Your task to perform on an android device: check battery use Image 0: 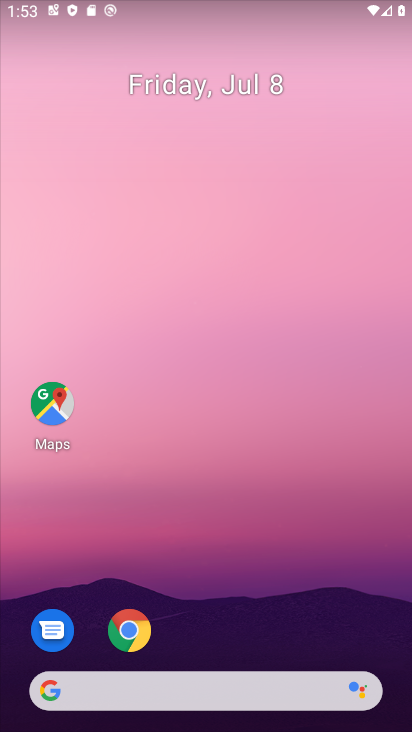
Step 0: drag from (211, 643) to (245, 67)
Your task to perform on an android device: check battery use Image 1: 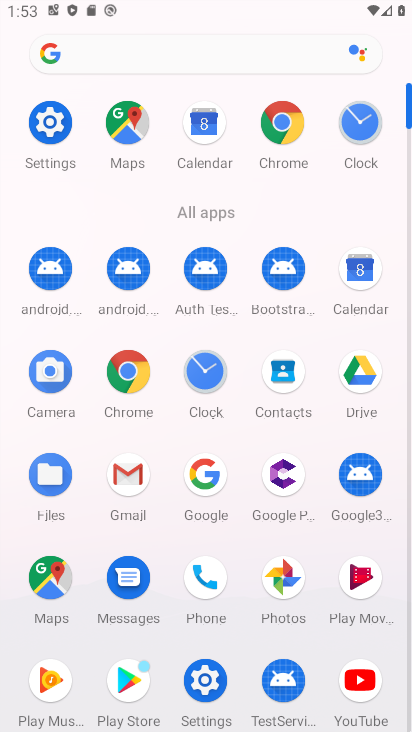
Step 1: click (50, 113)
Your task to perform on an android device: check battery use Image 2: 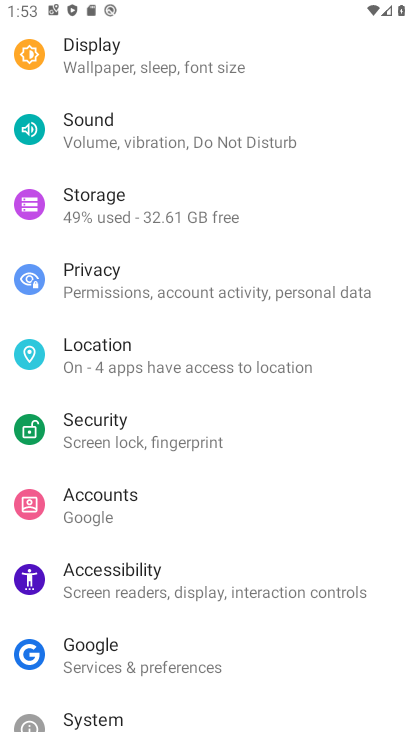
Step 2: drag from (133, 88) to (130, 436)
Your task to perform on an android device: check battery use Image 3: 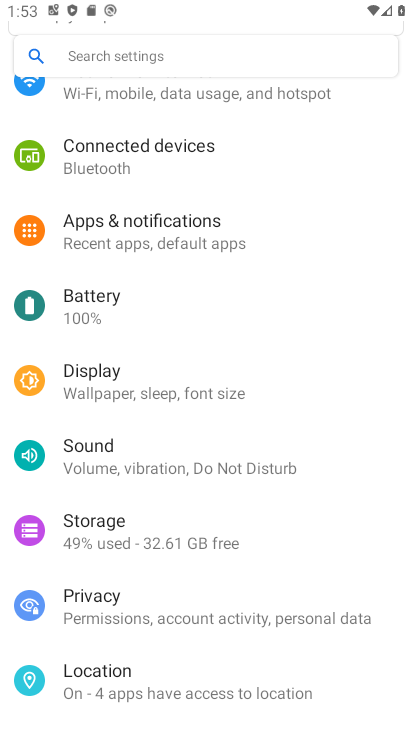
Step 3: click (119, 304)
Your task to perform on an android device: check battery use Image 4: 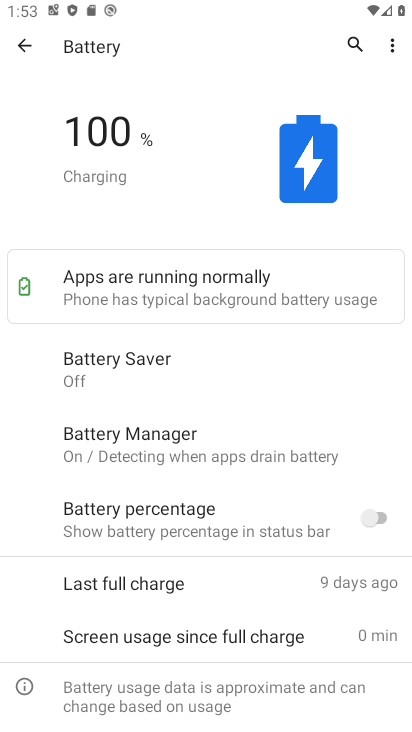
Step 4: click (390, 44)
Your task to perform on an android device: check battery use Image 5: 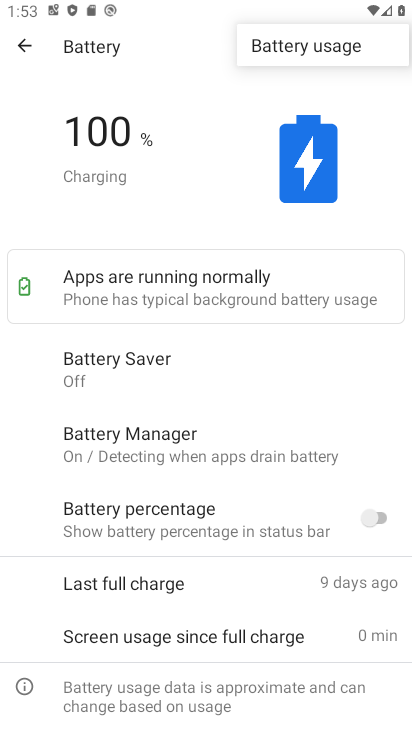
Step 5: click (289, 47)
Your task to perform on an android device: check battery use Image 6: 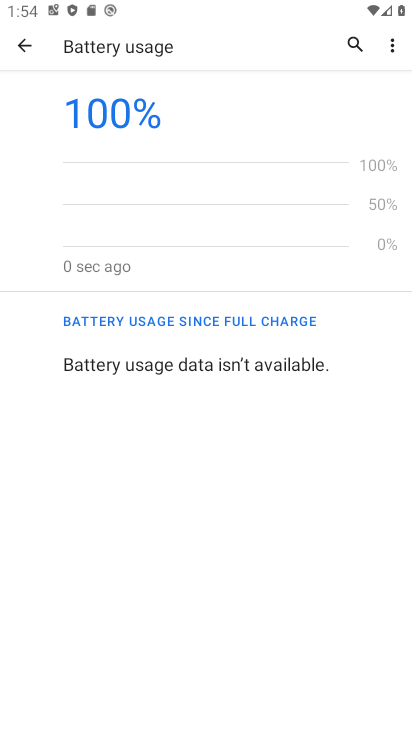
Step 6: task complete